Your task to perform on an android device: open a new tab in the chrome app Image 0: 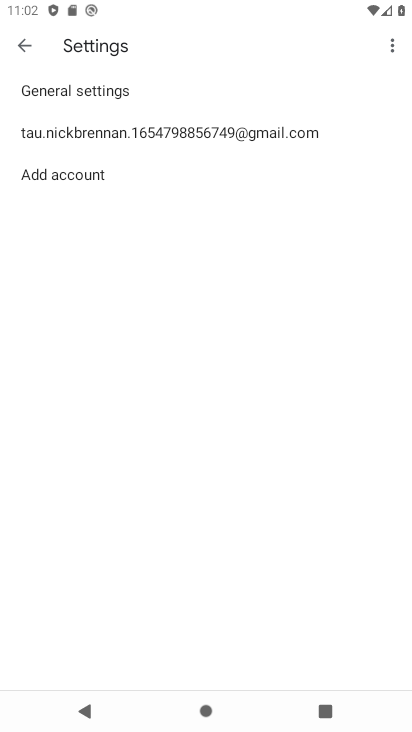
Step 0: press home button
Your task to perform on an android device: open a new tab in the chrome app Image 1: 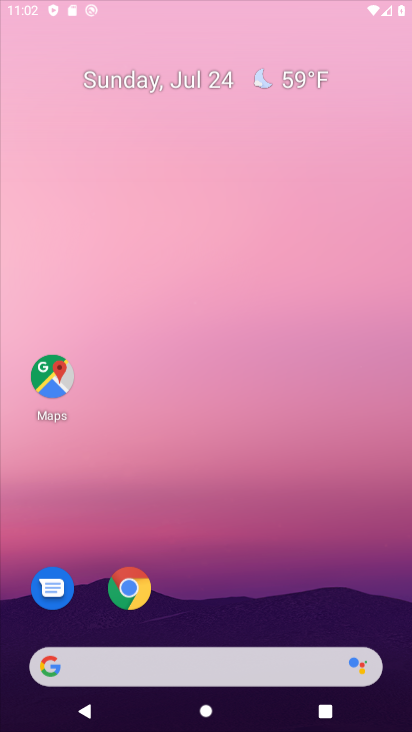
Step 1: drag from (373, 653) to (207, 66)
Your task to perform on an android device: open a new tab in the chrome app Image 2: 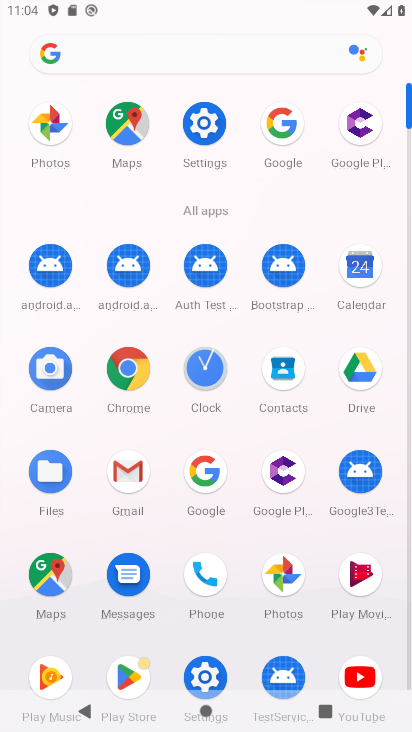
Step 2: click (130, 370)
Your task to perform on an android device: open a new tab in the chrome app Image 3: 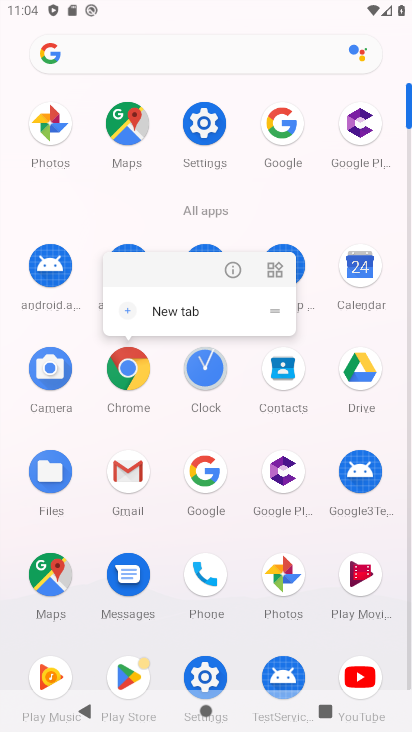
Step 3: click (130, 370)
Your task to perform on an android device: open a new tab in the chrome app Image 4: 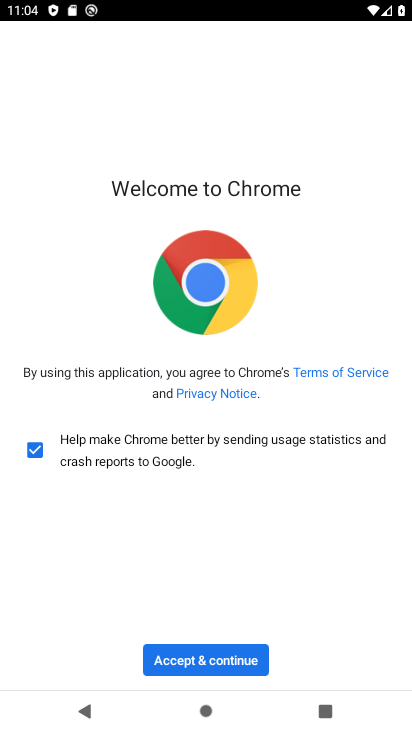
Step 4: click (246, 661)
Your task to perform on an android device: open a new tab in the chrome app Image 5: 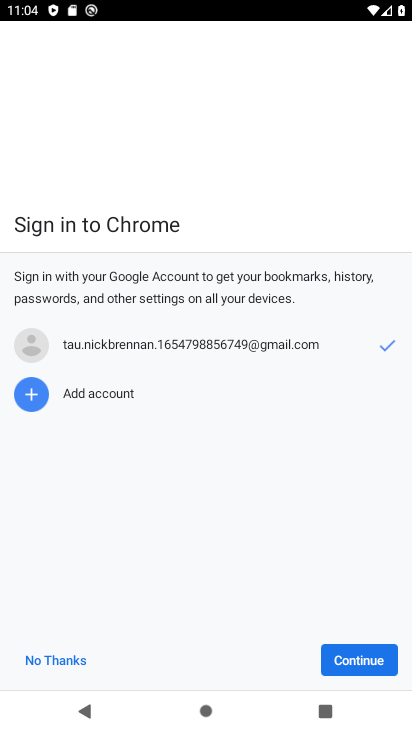
Step 5: click (390, 673)
Your task to perform on an android device: open a new tab in the chrome app Image 6: 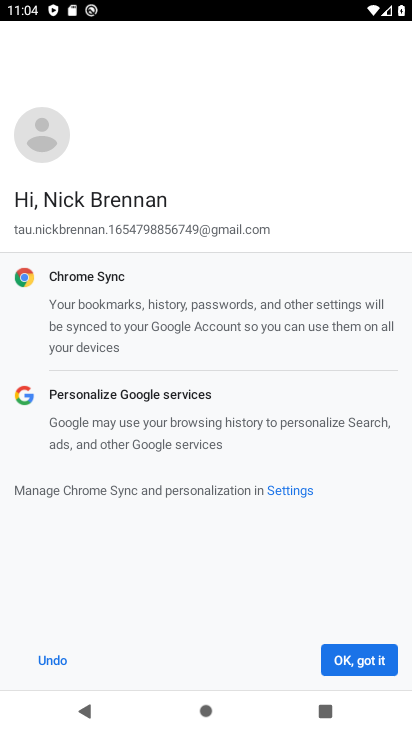
Step 6: click (390, 673)
Your task to perform on an android device: open a new tab in the chrome app Image 7: 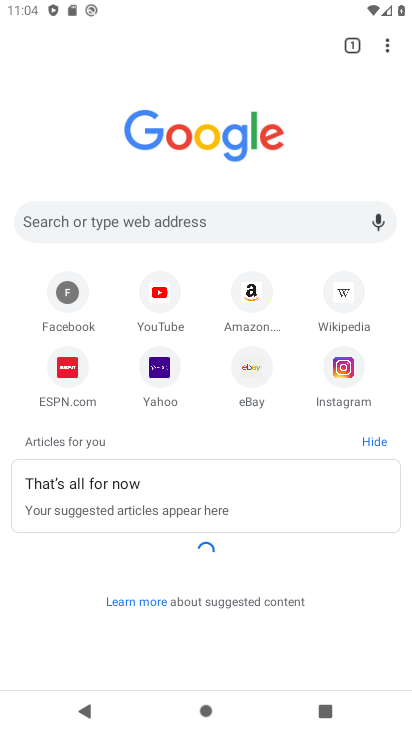
Step 7: click (387, 42)
Your task to perform on an android device: open a new tab in the chrome app Image 8: 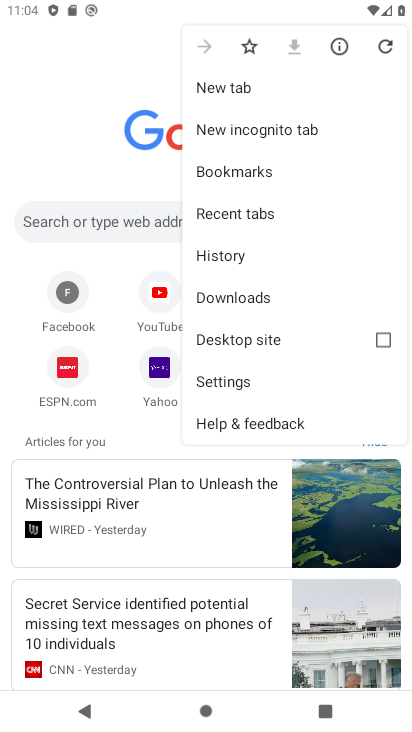
Step 8: click (225, 89)
Your task to perform on an android device: open a new tab in the chrome app Image 9: 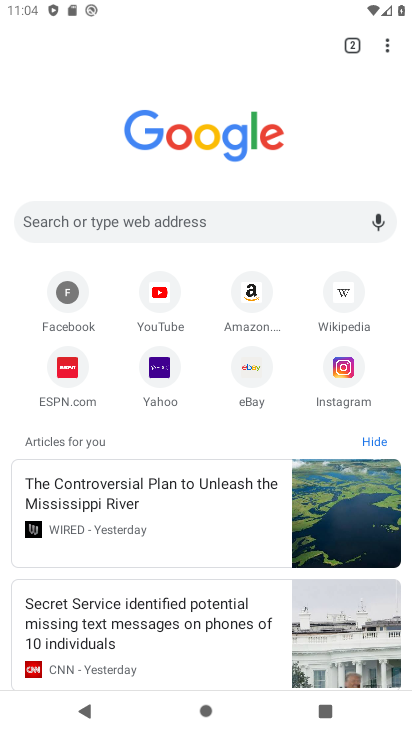
Step 9: task complete